Your task to perform on an android device: Open Chrome and go to the settings page Image 0: 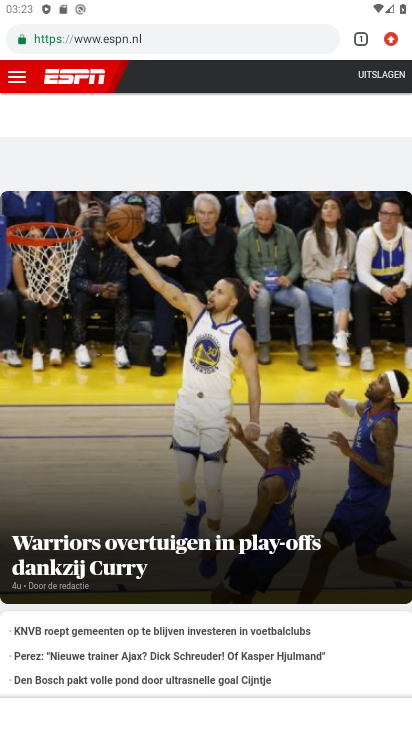
Step 0: press home button
Your task to perform on an android device: Open Chrome and go to the settings page Image 1: 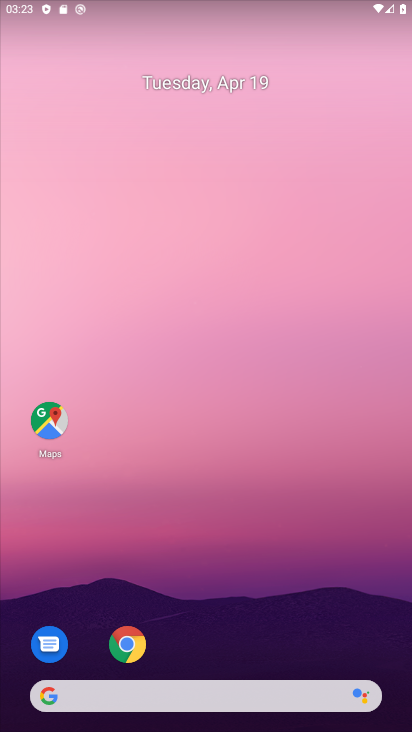
Step 1: click (125, 640)
Your task to perform on an android device: Open Chrome and go to the settings page Image 2: 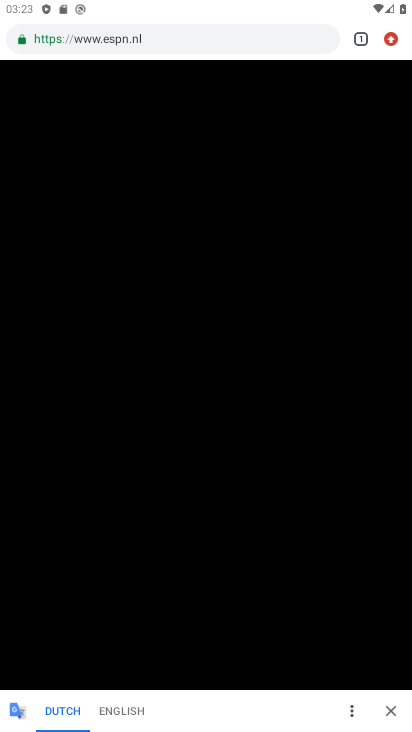
Step 2: click (388, 38)
Your task to perform on an android device: Open Chrome and go to the settings page Image 3: 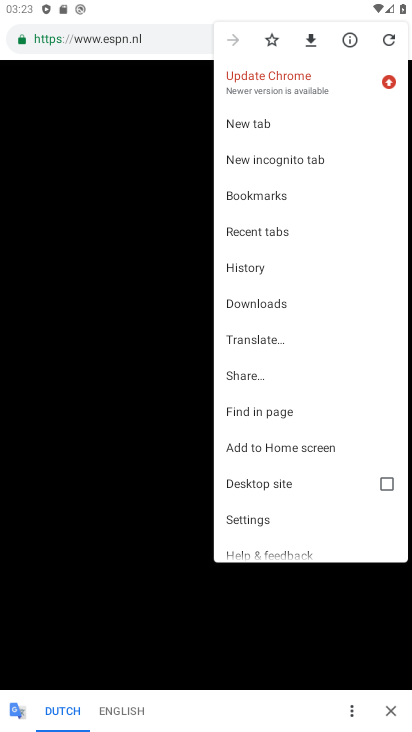
Step 3: click (253, 515)
Your task to perform on an android device: Open Chrome and go to the settings page Image 4: 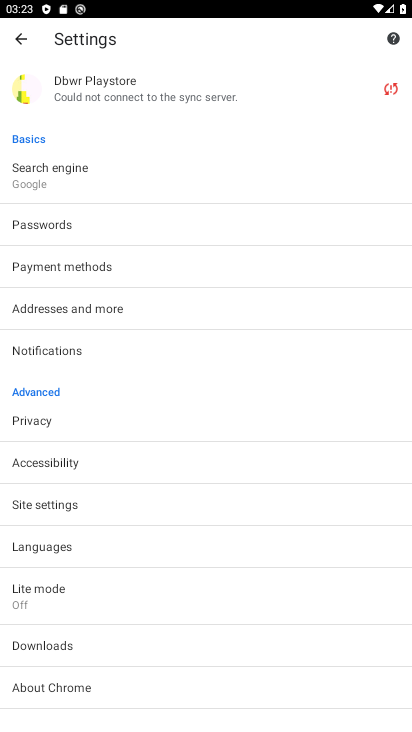
Step 4: task complete